Your task to perform on an android device: add a contact Image 0: 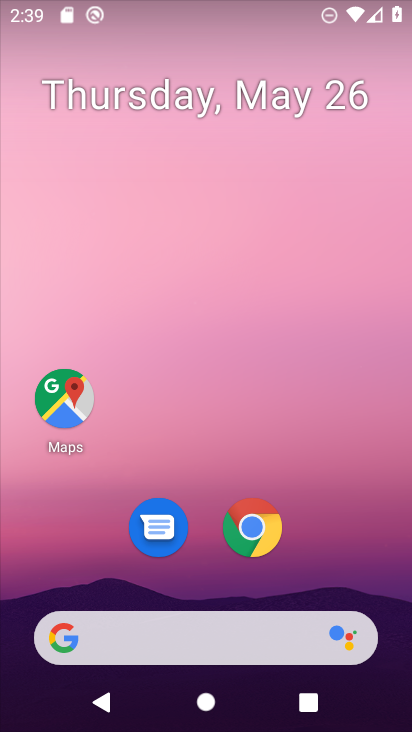
Step 0: drag from (198, 570) to (188, 89)
Your task to perform on an android device: add a contact Image 1: 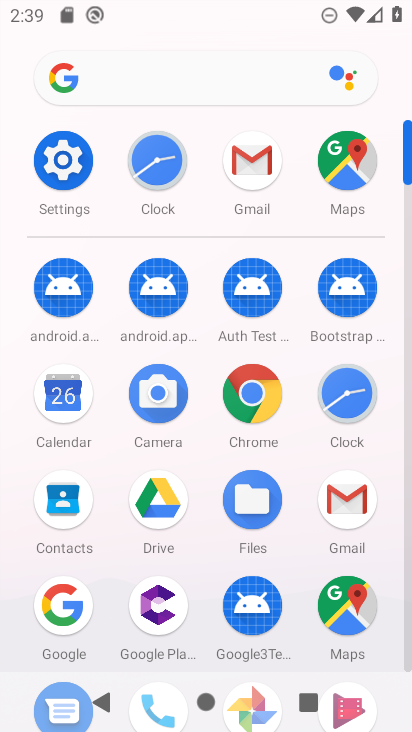
Step 1: click (59, 489)
Your task to perform on an android device: add a contact Image 2: 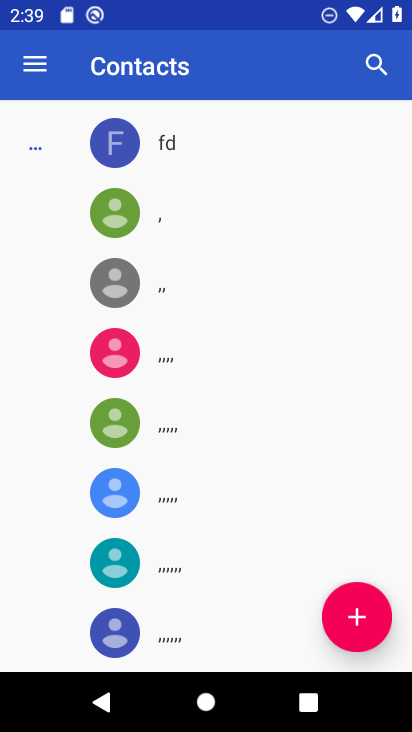
Step 2: click (362, 611)
Your task to perform on an android device: add a contact Image 3: 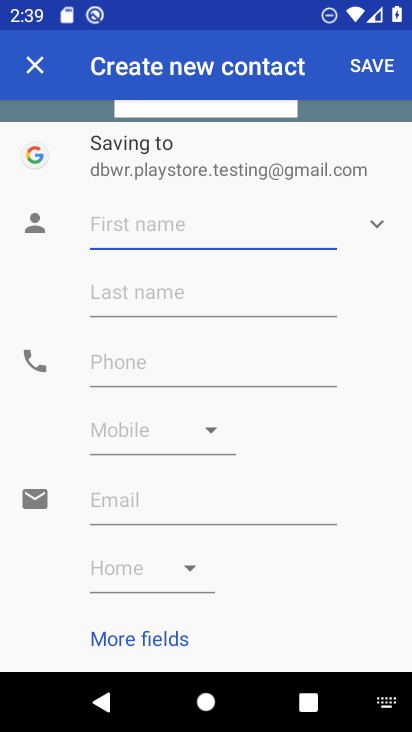
Step 3: click (125, 231)
Your task to perform on an android device: add a contact Image 4: 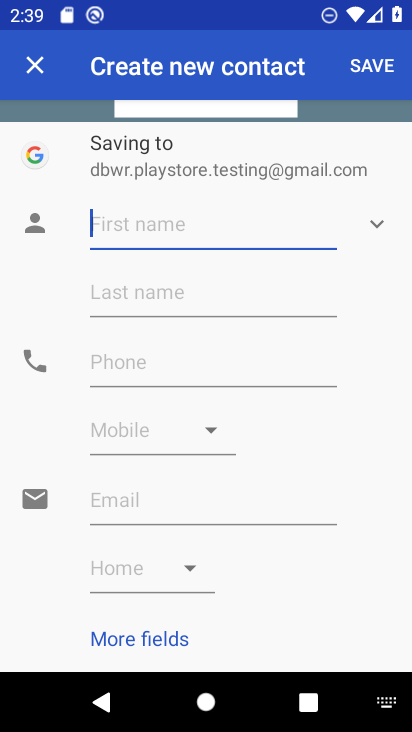
Step 4: type "vvjb"
Your task to perform on an android device: add a contact Image 5: 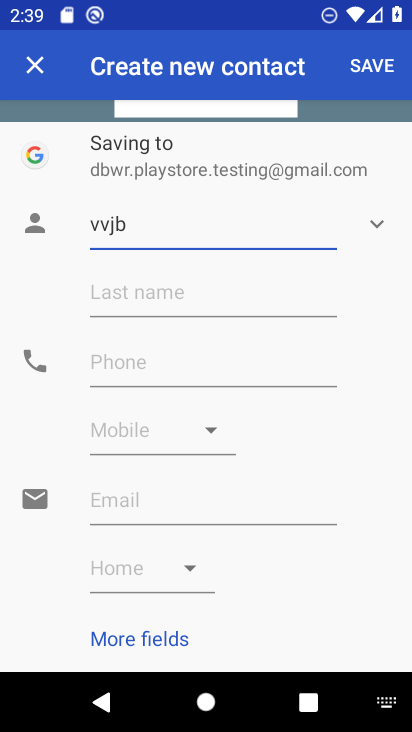
Step 5: click (166, 360)
Your task to perform on an android device: add a contact Image 6: 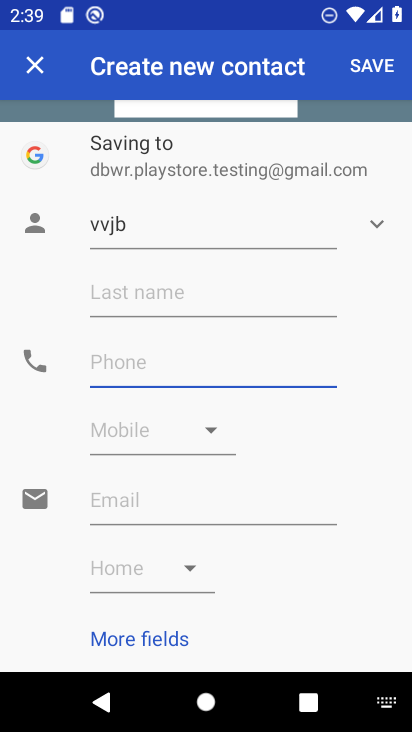
Step 6: type "797"
Your task to perform on an android device: add a contact Image 7: 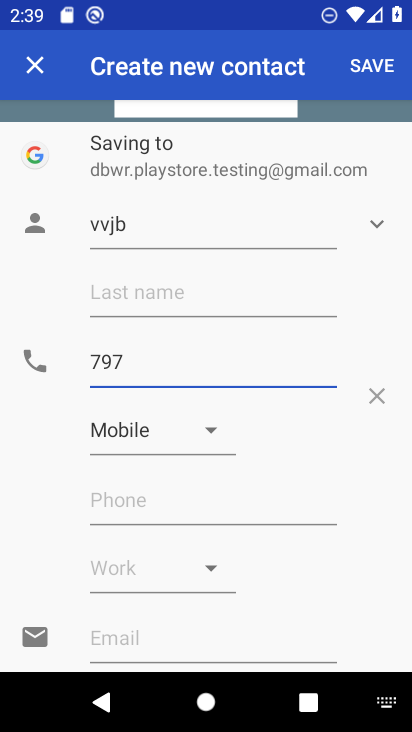
Step 7: click (359, 60)
Your task to perform on an android device: add a contact Image 8: 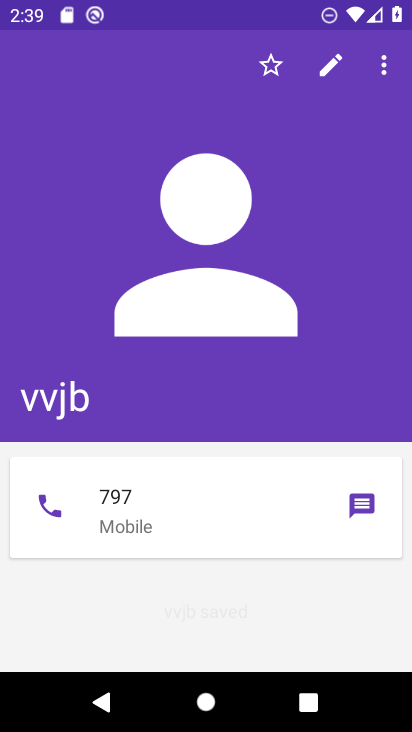
Step 8: task complete